Your task to perform on an android device: delete browsing data in the chrome app Image 0: 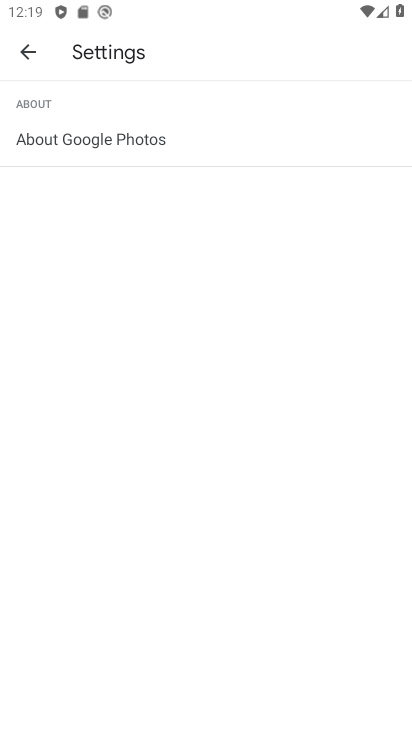
Step 0: press home button
Your task to perform on an android device: delete browsing data in the chrome app Image 1: 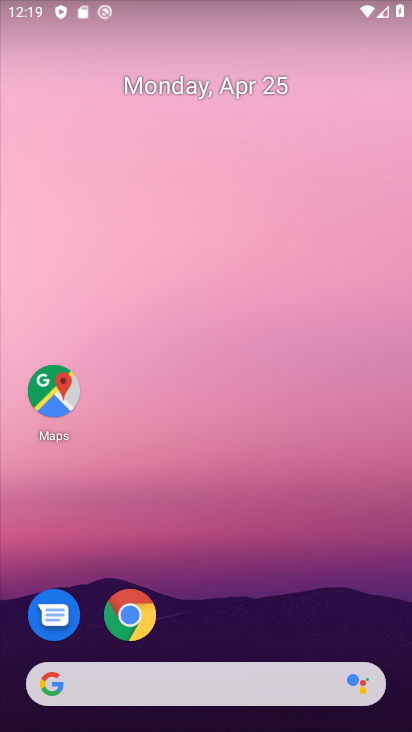
Step 1: drag from (189, 644) to (114, 3)
Your task to perform on an android device: delete browsing data in the chrome app Image 2: 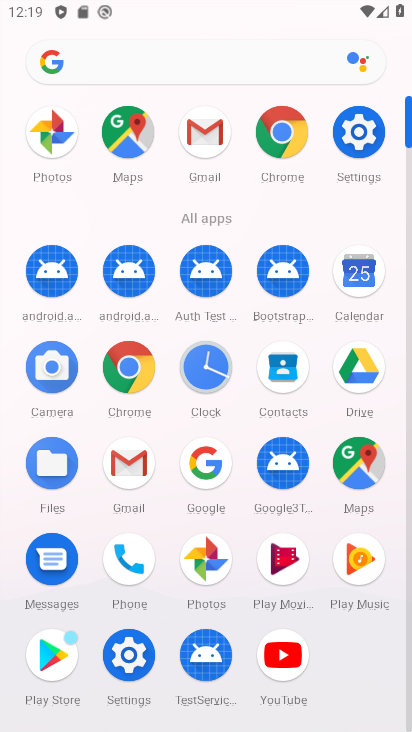
Step 2: click (125, 373)
Your task to perform on an android device: delete browsing data in the chrome app Image 3: 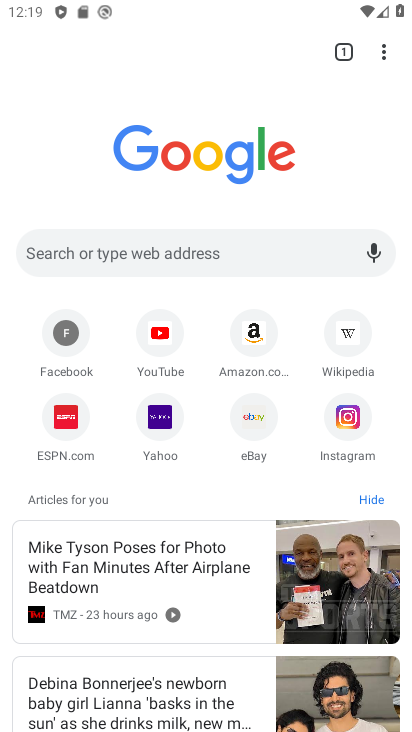
Step 3: task complete